Your task to perform on an android device: stop showing notifications on the lock screen Image 0: 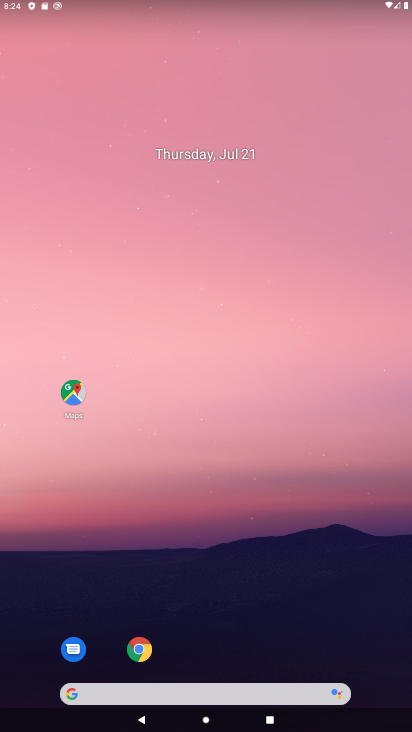
Step 0: drag from (193, 682) to (286, 195)
Your task to perform on an android device: stop showing notifications on the lock screen Image 1: 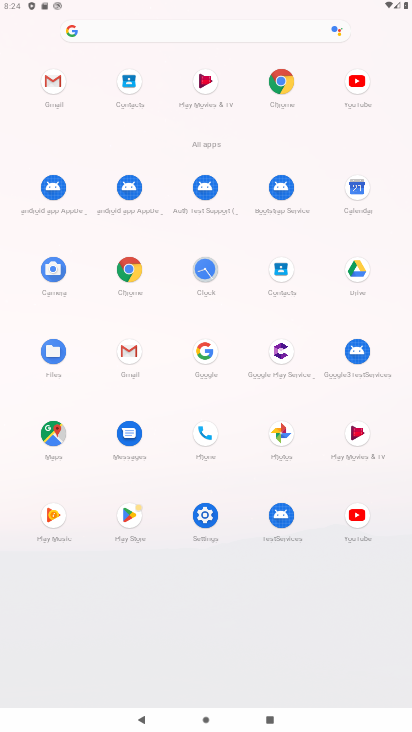
Step 1: click (212, 526)
Your task to perform on an android device: stop showing notifications on the lock screen Image 2: 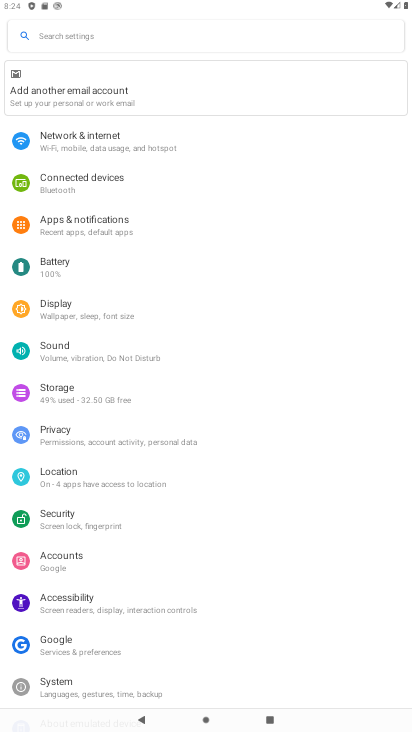
Step 2: click (90, 219)
Your task to perform on an android device: stop showing notifications on the lock screen Image 3: 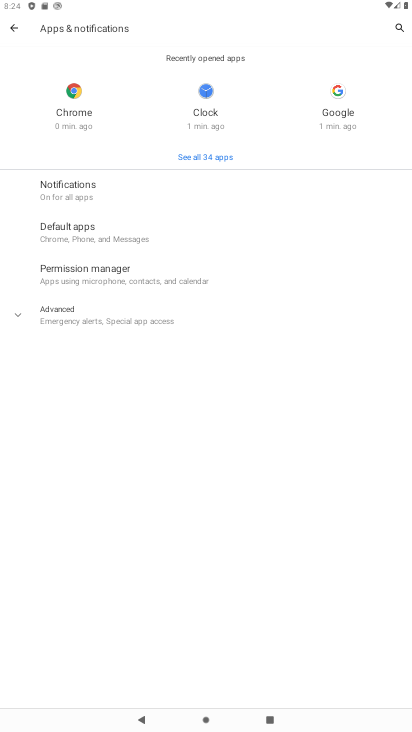
Step 3: click (140, 204)
Your task to perform on an android device: stop showing notifications on the lock screen Image 4: 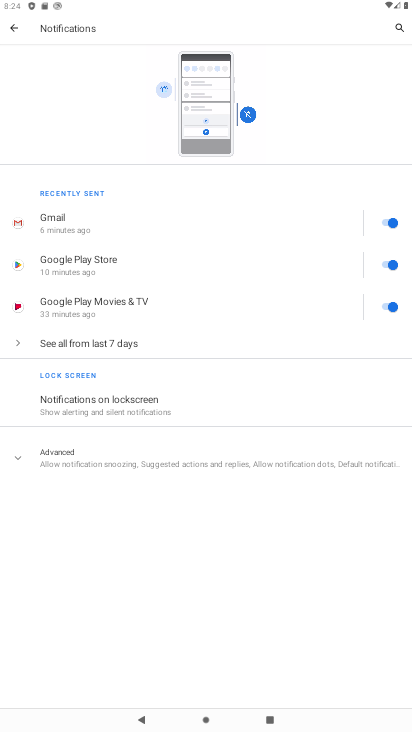
Step 4: click (122, 403)
Your task to perform on an android device: stop showing notifications on the lock screen Image 5: 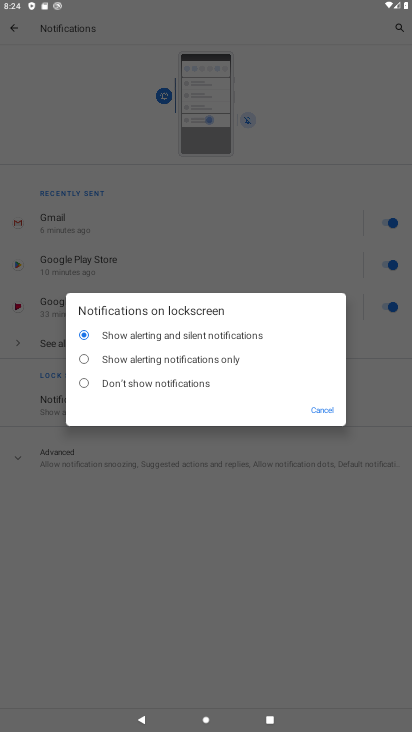
Step 5: click (79, 385)
Your task to perform on an android device: stop showing notifications on the lock screen Image 6: 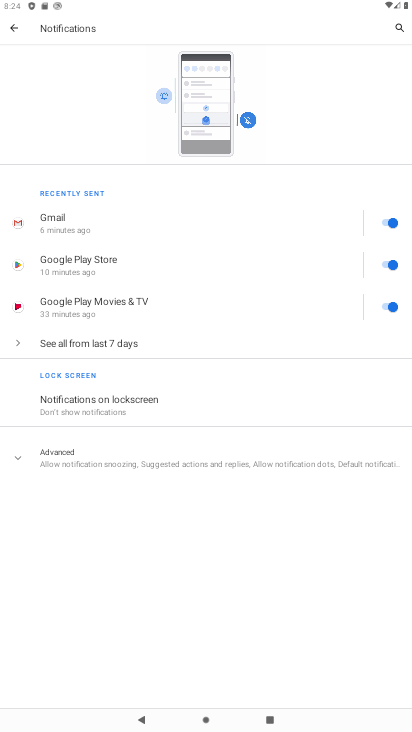
Step 6: task complete